Your task to perform on an android device: all mails in gmail Image 0: 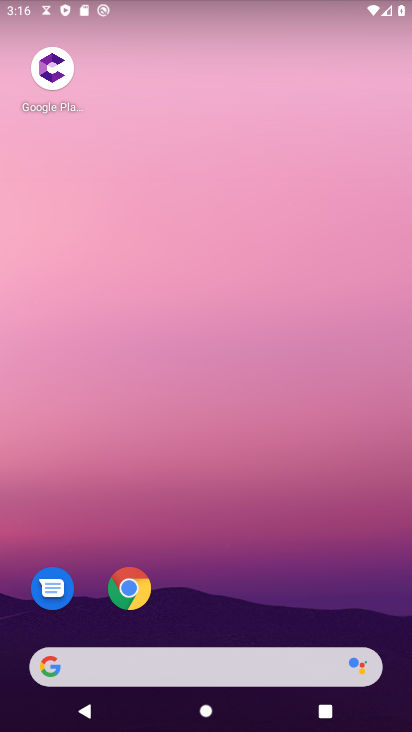
Step 0: drag from (307, 581) to (352, 0)
Your task to perform on an android device: all mails in gmail Image 1: 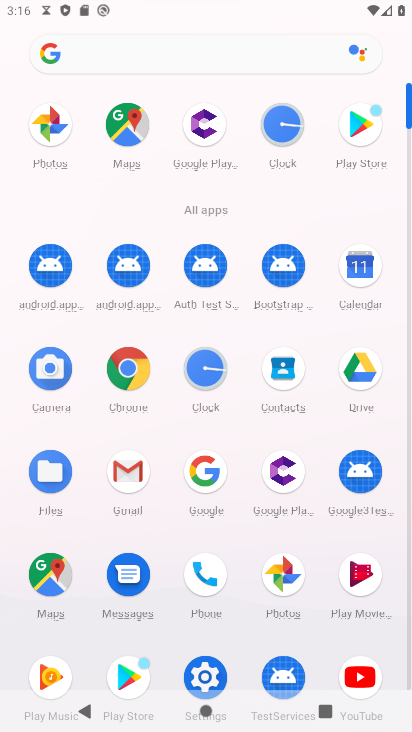
Step 1: click (136, 475)
Your task to perform on an android device: all mails in gmail Image 2: 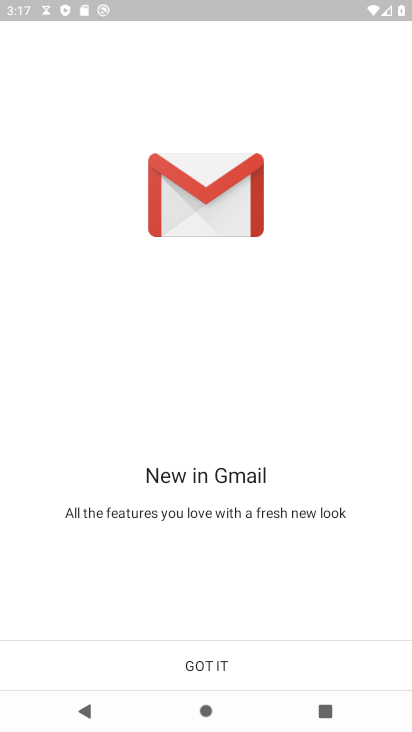
Step 2: click (216, 661)
Your task to perform on an android device: all mails in gmail Image 3: 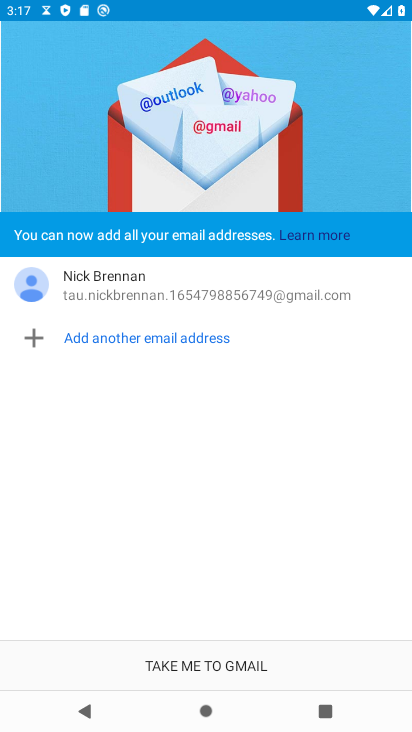
Step 3: click (216, 661)
Your task to perform on an android device: all mails in gmail Image 4: 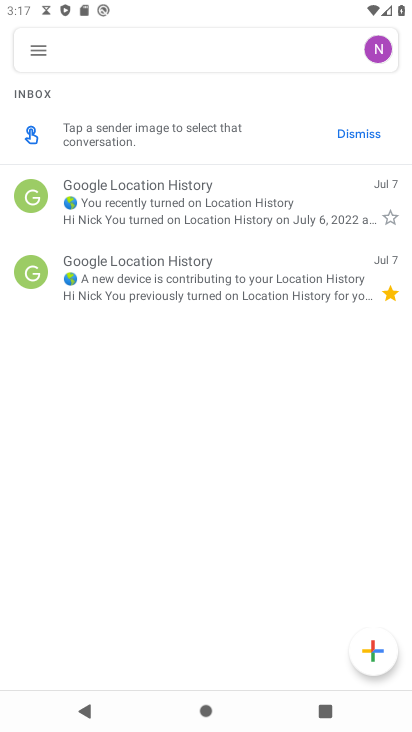
Step 4: click (34, 59)
Your task to perform on an android device: all mails in gmail Image 5: 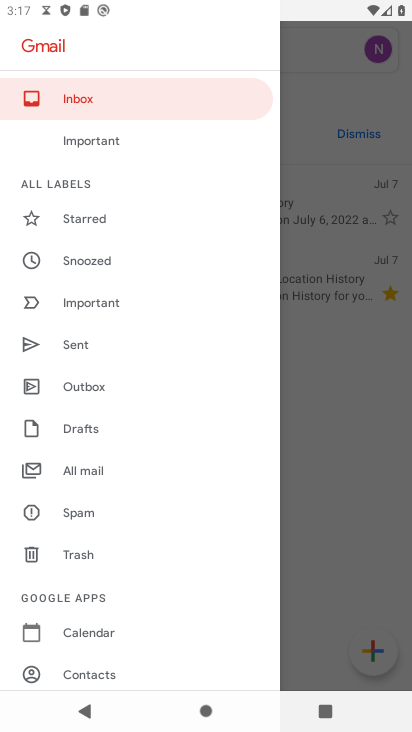
Step 5: click (141, 477)
Your task to perform on an android device: all mails in gmail Image 6: 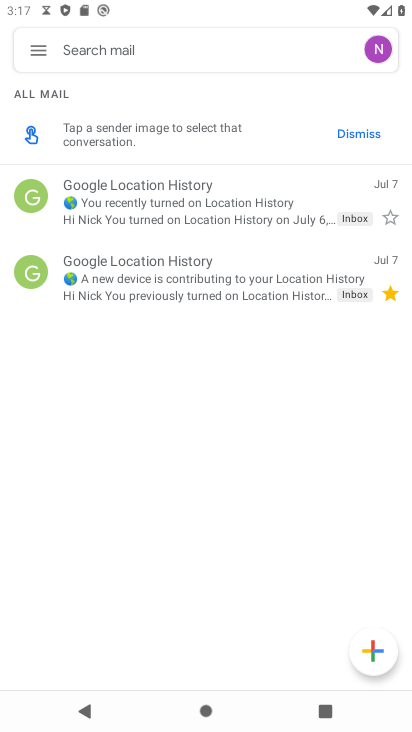
Step 6: task complete